Your task to perform on an android device: change timer sound Image 0: 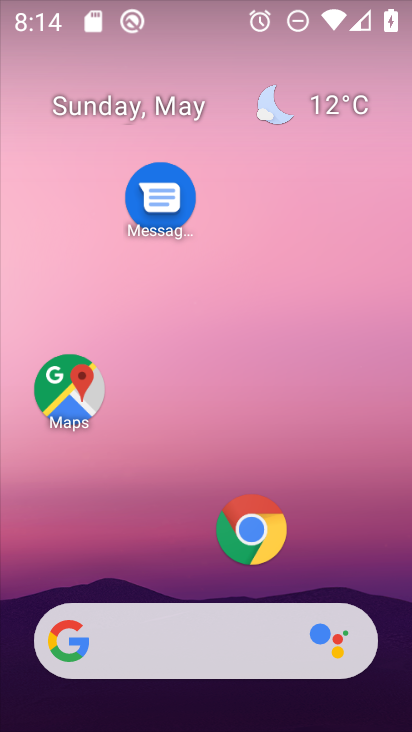
Step 0: press home button
Your task to perform on an android device: change timer sound Image 1: 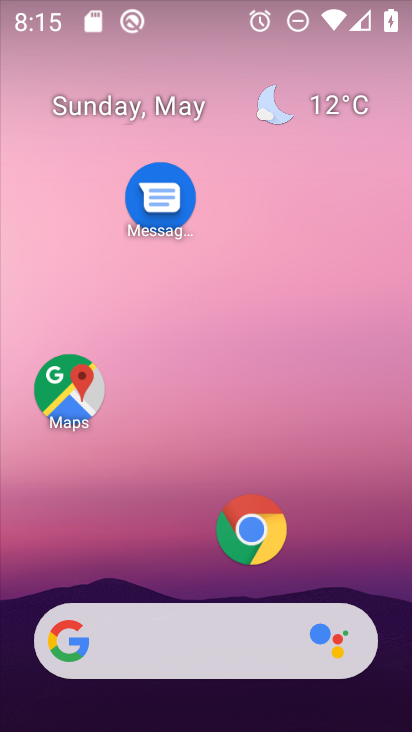
Step 1: drag from (192, 579) to (228, 34)
Your task to perform on an android device: change timer sound Image 2: 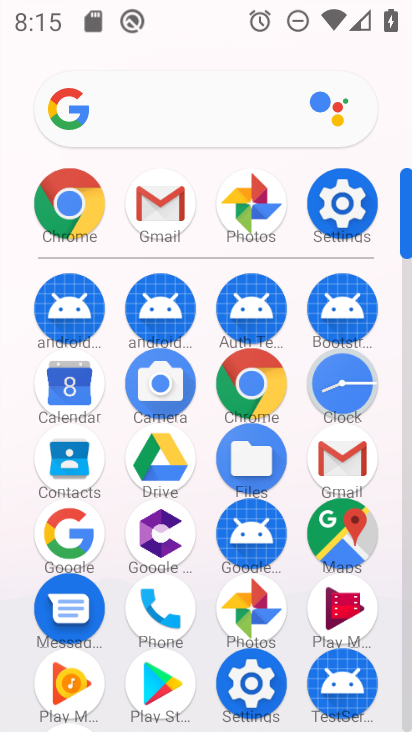
Step 2: click (340, 375)
Your task to perform on an android device: change timer sound Image 3: 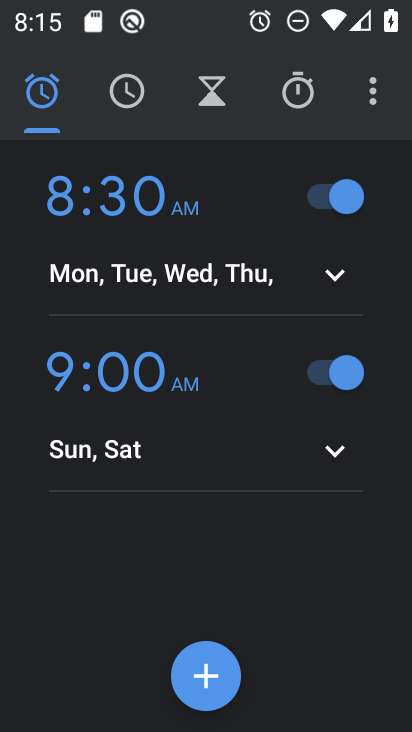
Step 3: click (369, 87)
Your task to perform on an android device: change timer sound Image 4: 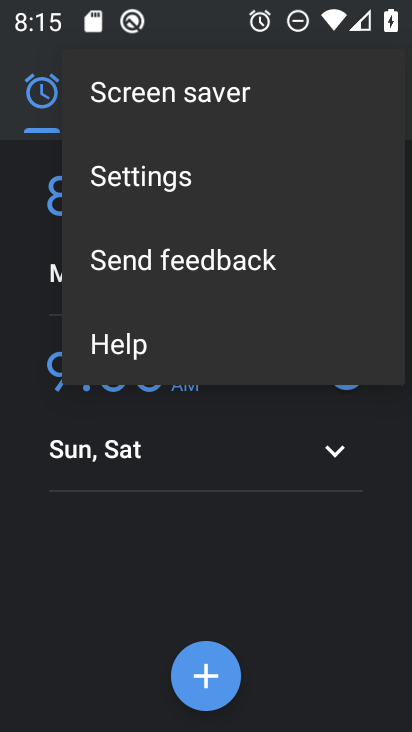
Step 4: click (195, 182)
Your task to perform on an android device: change timer sound Image 5: 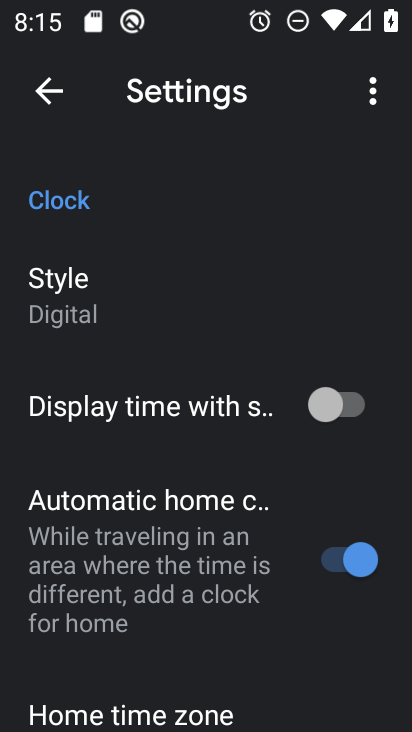
Step 5: drag from (232, 649) to (297, 230)
Your task to perform on an android device: change timer sound Image 6: 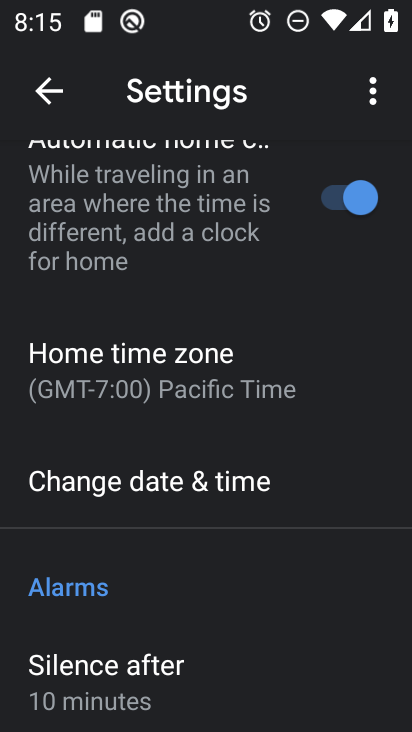
Step 6: drag from (255, 353) to (282, 226)
Your task to perform on an android device: change timer sound Image 7: 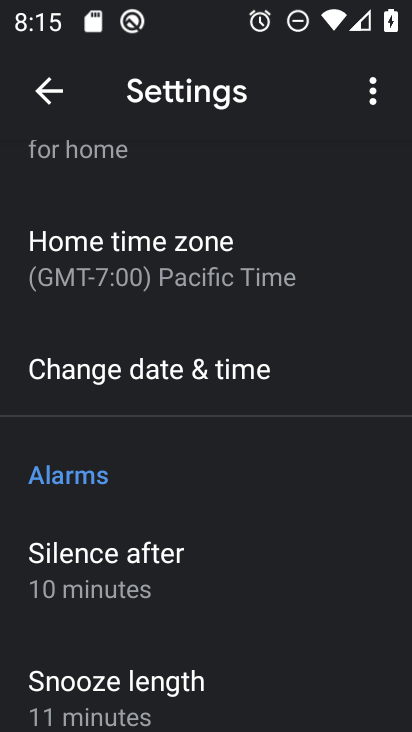
Step 7: drag from (225, 660) to (271, 244)
Your task to perform on an android device: change timer sound Image 8: 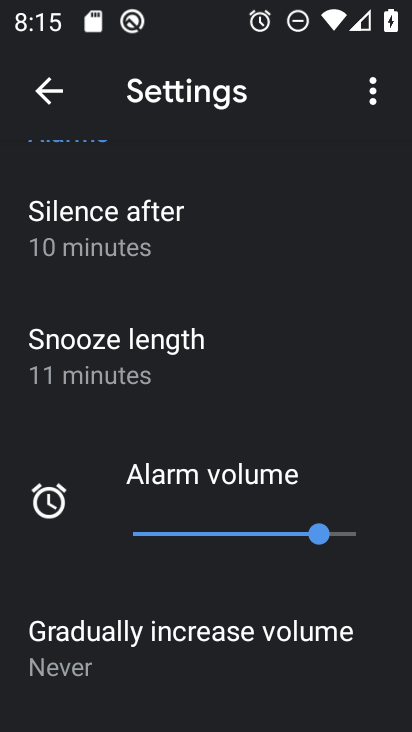
Step 8: drag from (208, 633) to (250, 212)
Your task to perform on an android device: change timer sound Image 9: 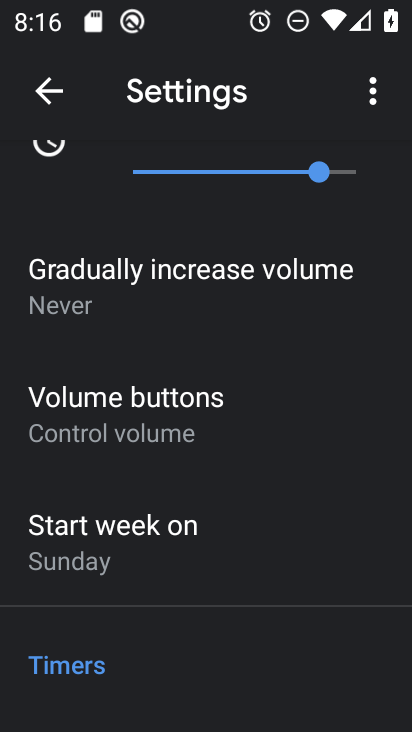
Step 9: drag from (180, 635) to (218, 289)
Your task to perform on an android device: change timer sound Image 10: 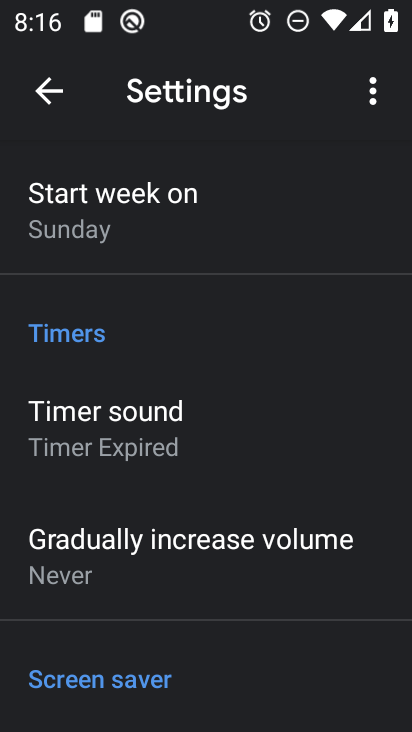
Step 10: click (207, 432)
Your task to perform on an android device: change timer sound Image 11: 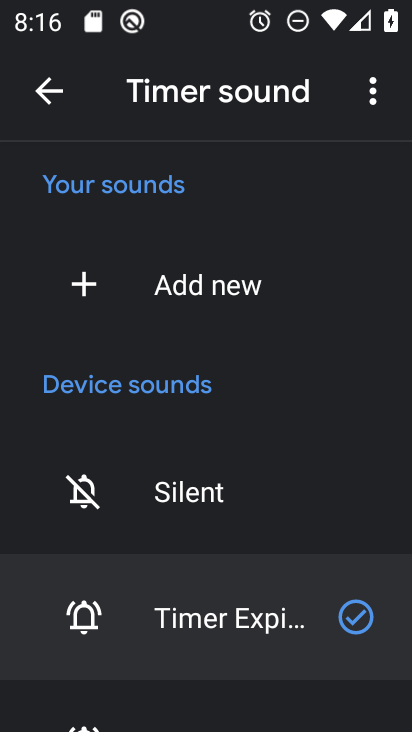
Step 11: drag from (220, 596) to (257, 128)
Your task to perform on an android device: change timer sound Image 12: 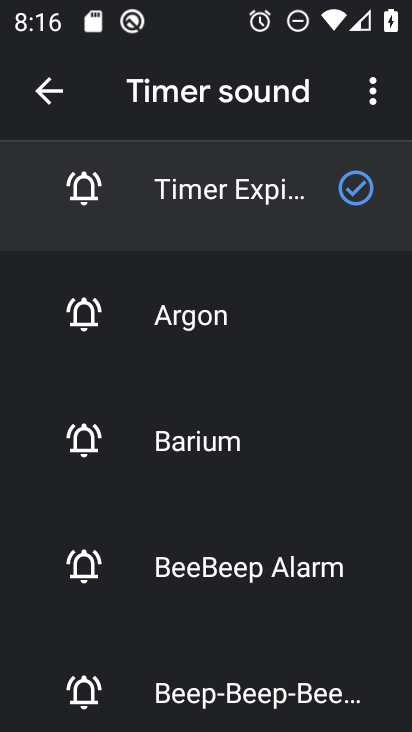
Step 12: click (248, 570)
Your task to perform on an android device: change timer sound Image 13: 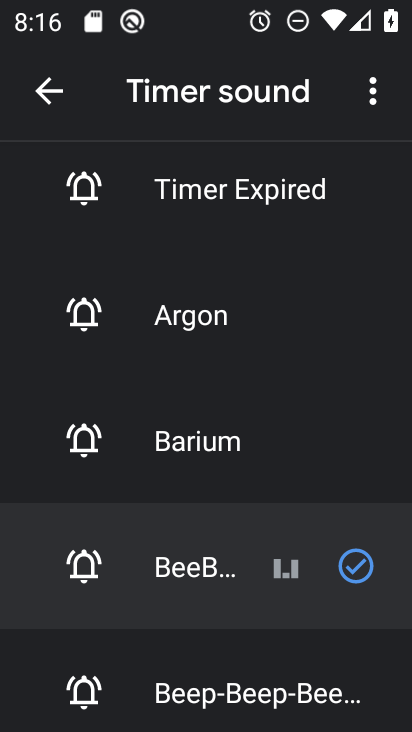
Step 13: task complete